Your task to perform on an android device: What's the weather today? Image 0: 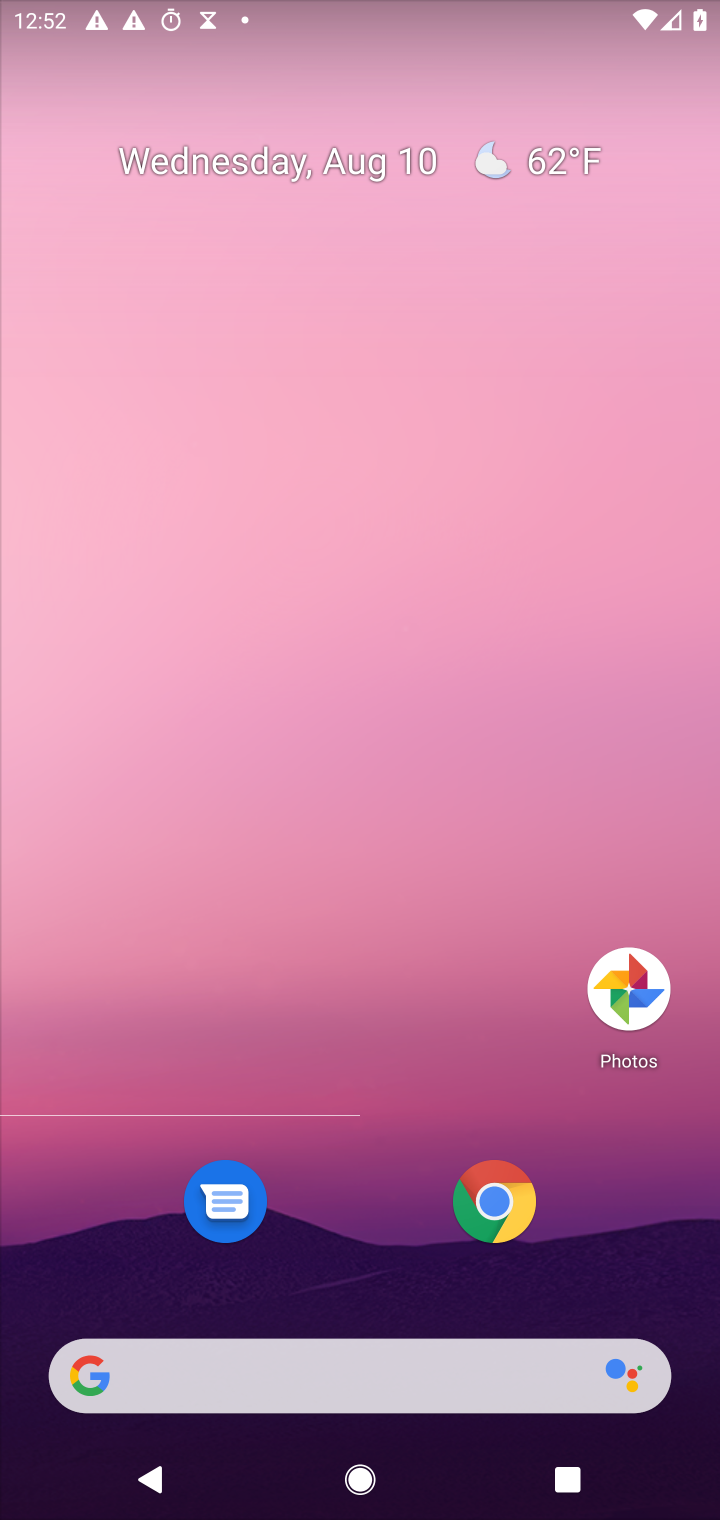
Step 0: drag from (372, 1229) to (353, 174)
Your task to perform on an android device: What's the weather today? Image 1: 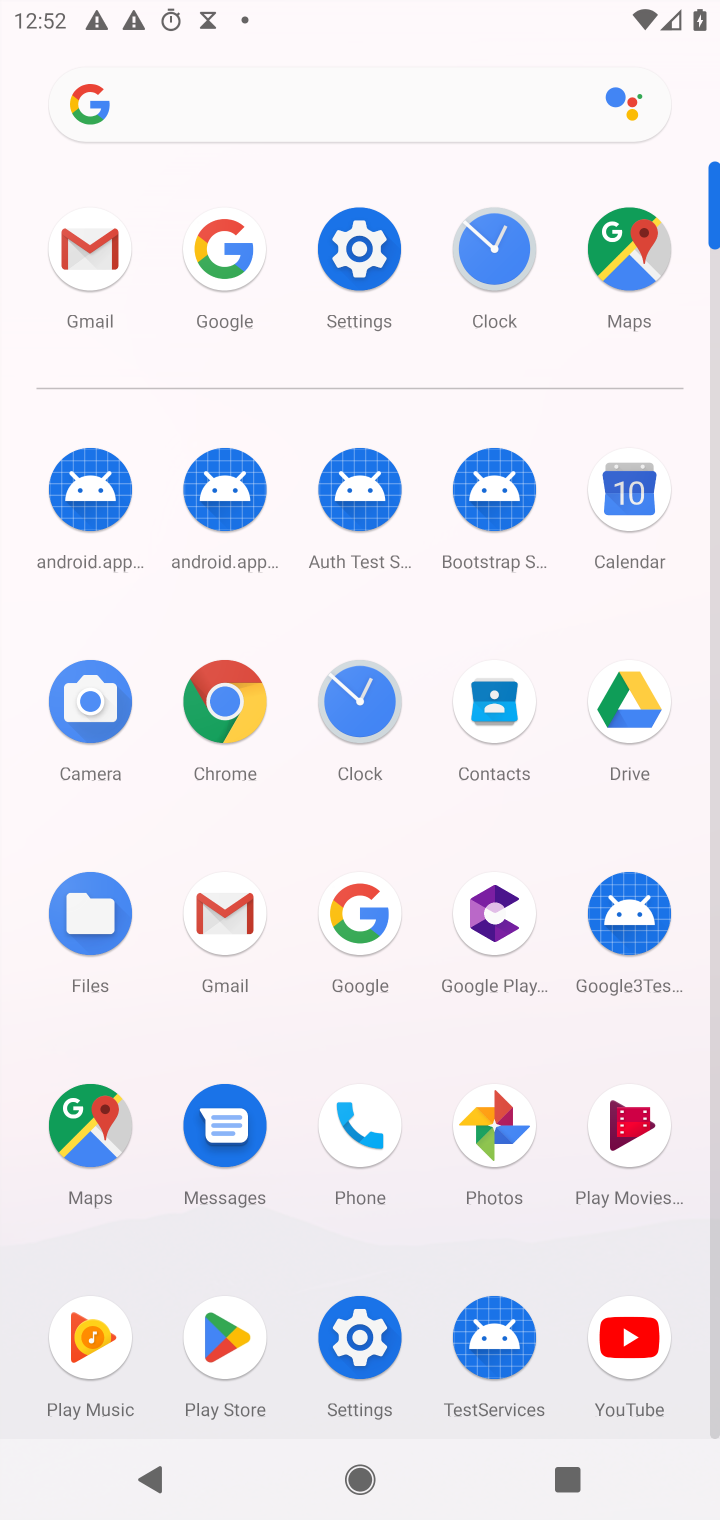
Step 1: click (234, 246)
Your task to perform on an android device: What's the weather today? Image 2: 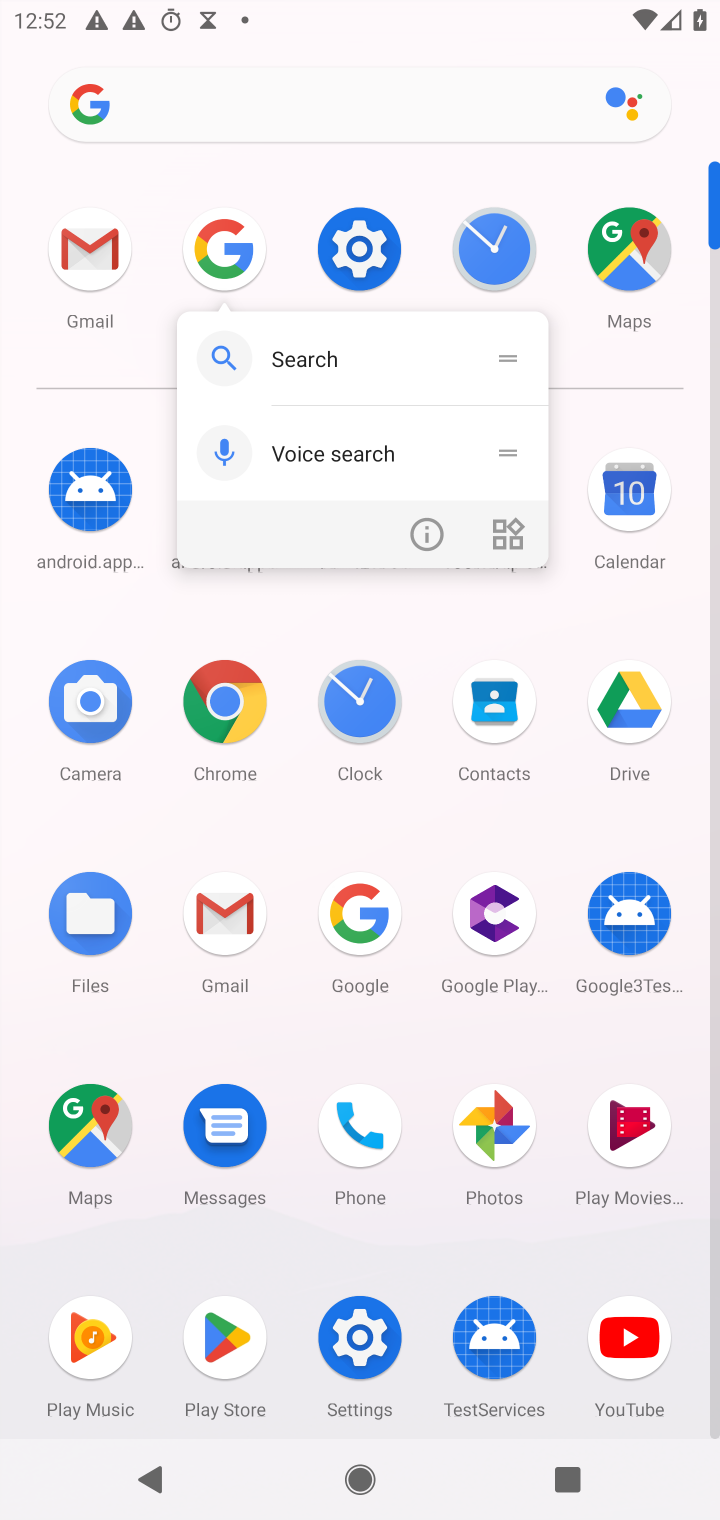
Step 2: click (220, 240)
Your task to perform on an android device: What's the weather today? Image 3: 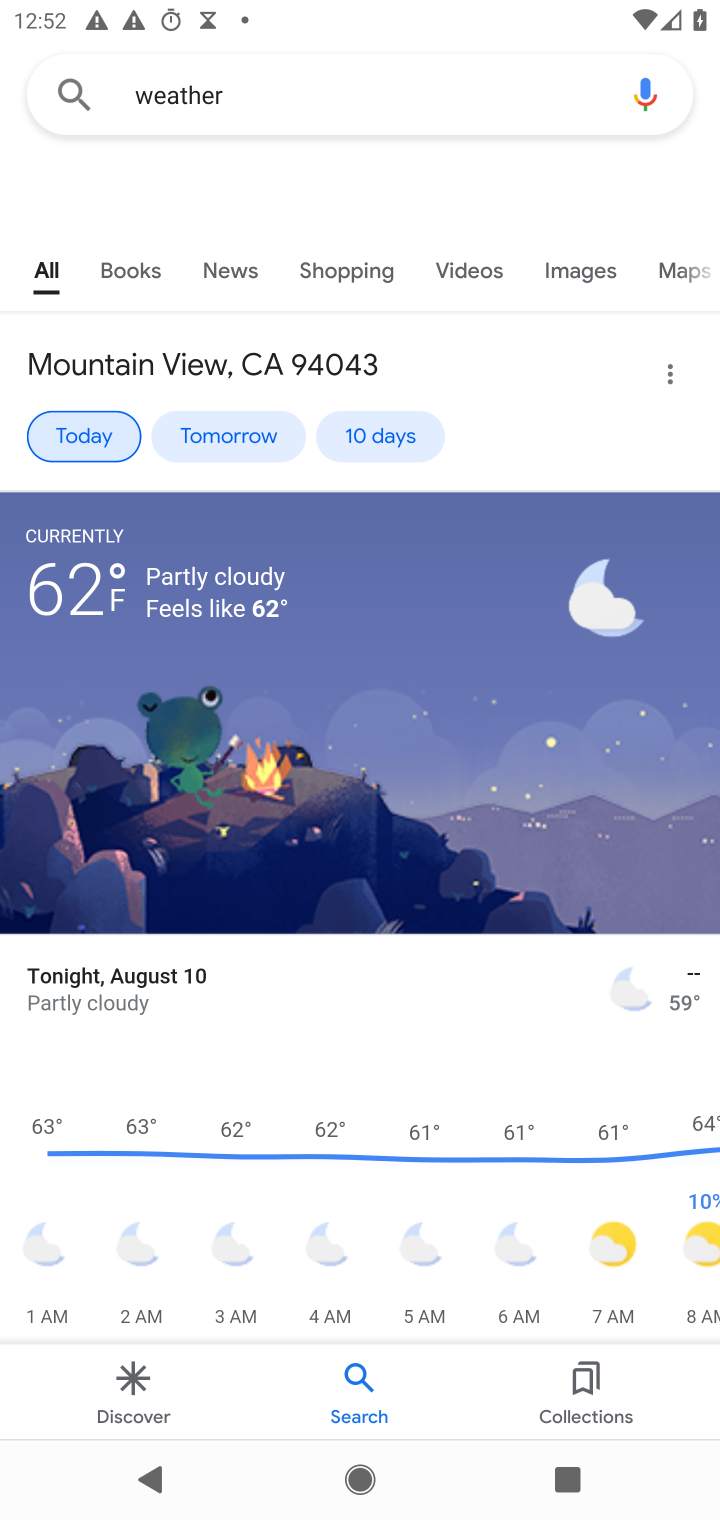
Step 3: click (375, 95)
Your task to perform on an android device: What's the weather today? Image 4: 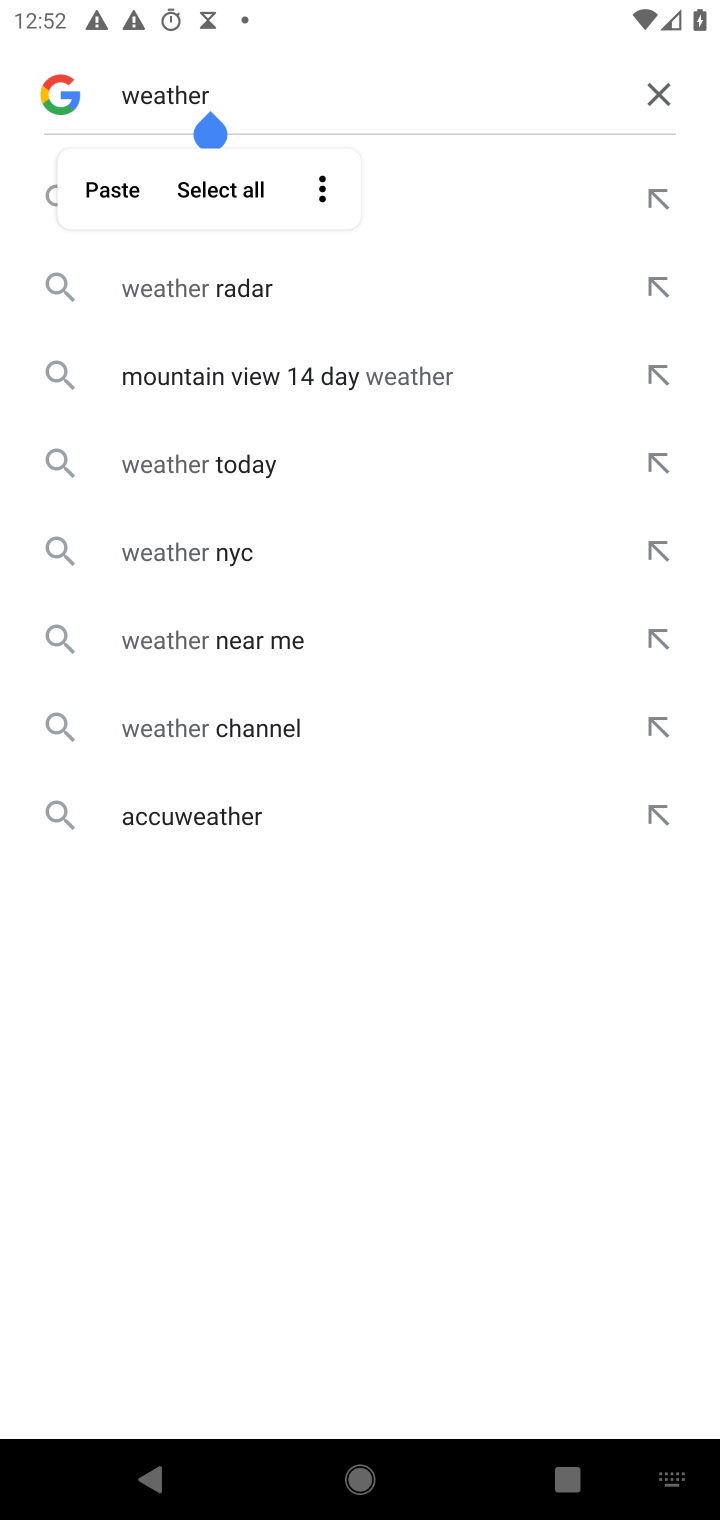
Step 4: click (666, 69)
Your task to perform on an android device: What's the weather today? Image 5: 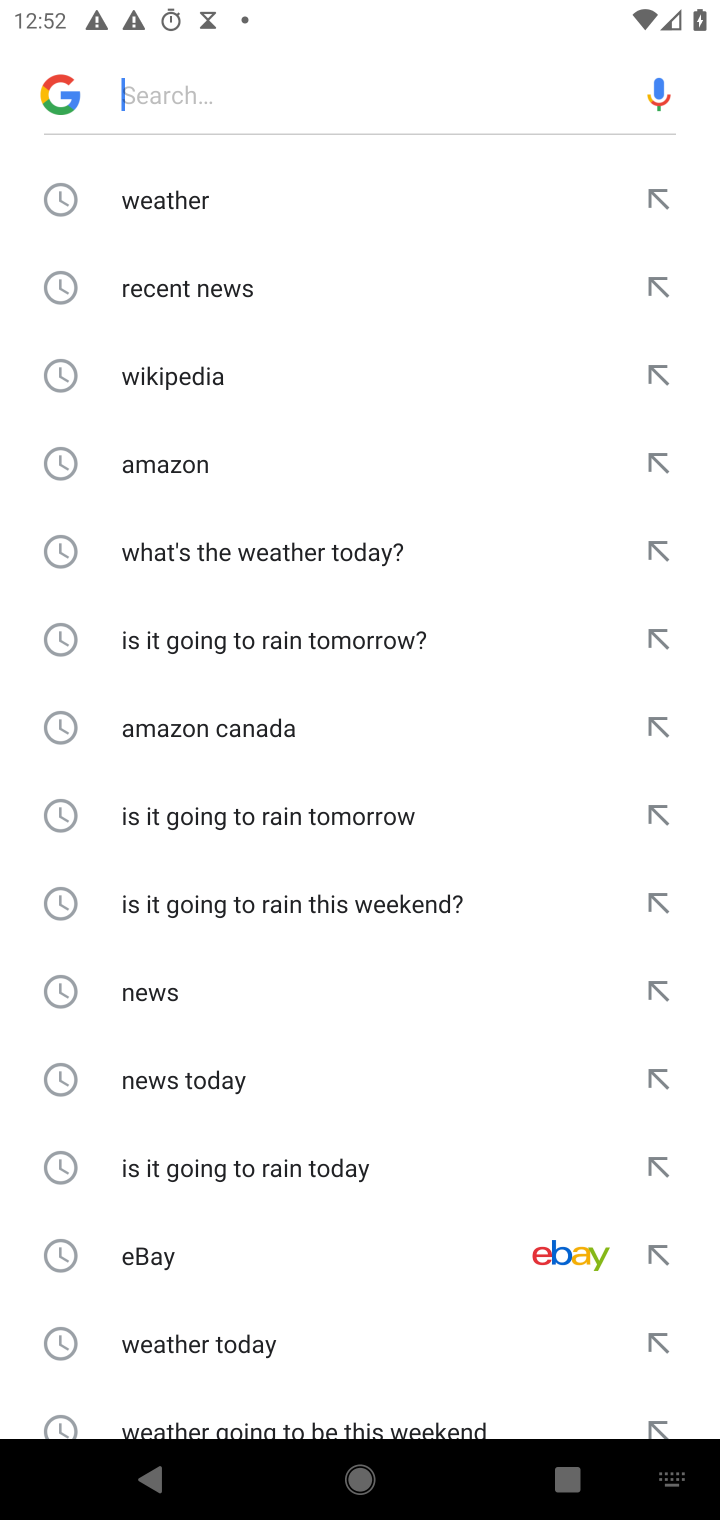
Step 5: type "What's the weather today?"
Your task to perform on an android device: What's the weather today? Image 6: 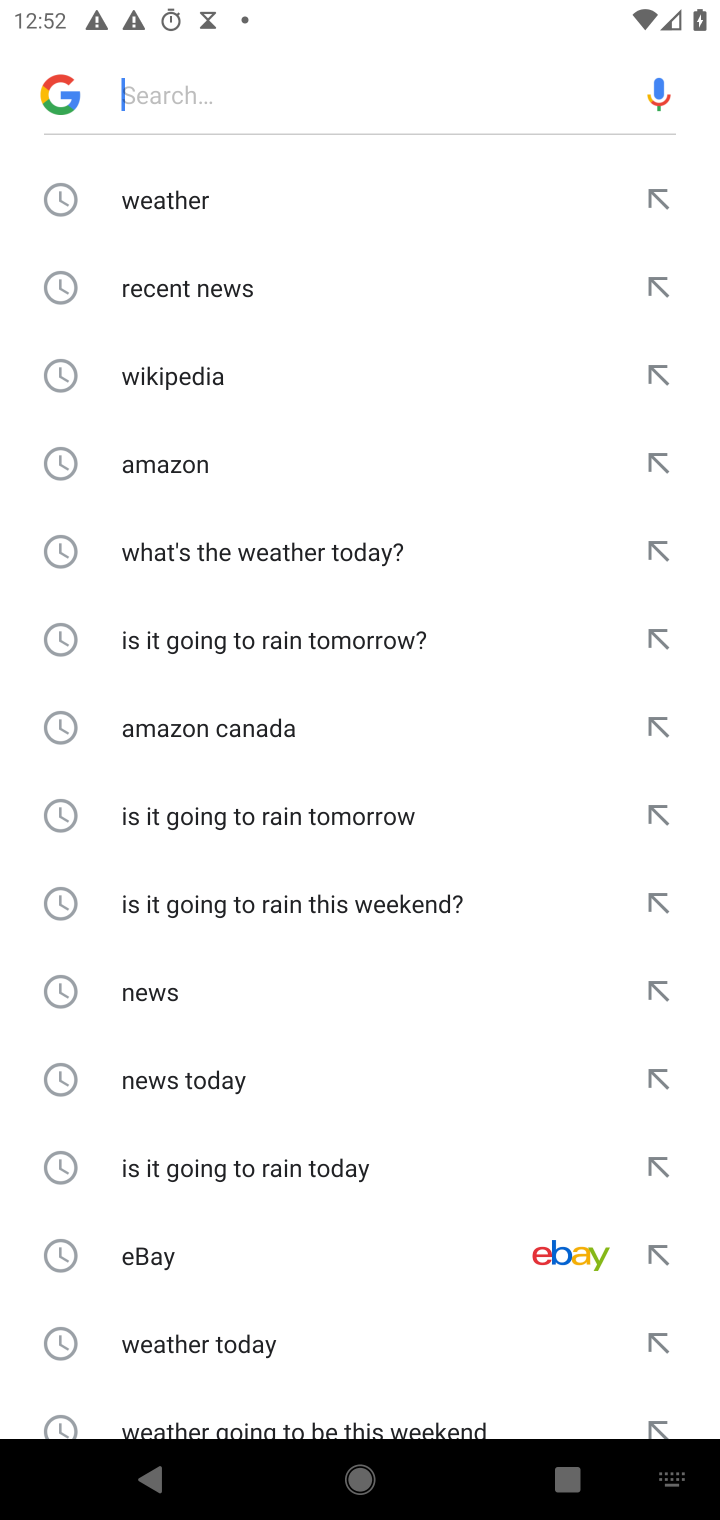
Step 6: click (230, 90)
Your task to perform on an android device: What's the weather today? Image 7: 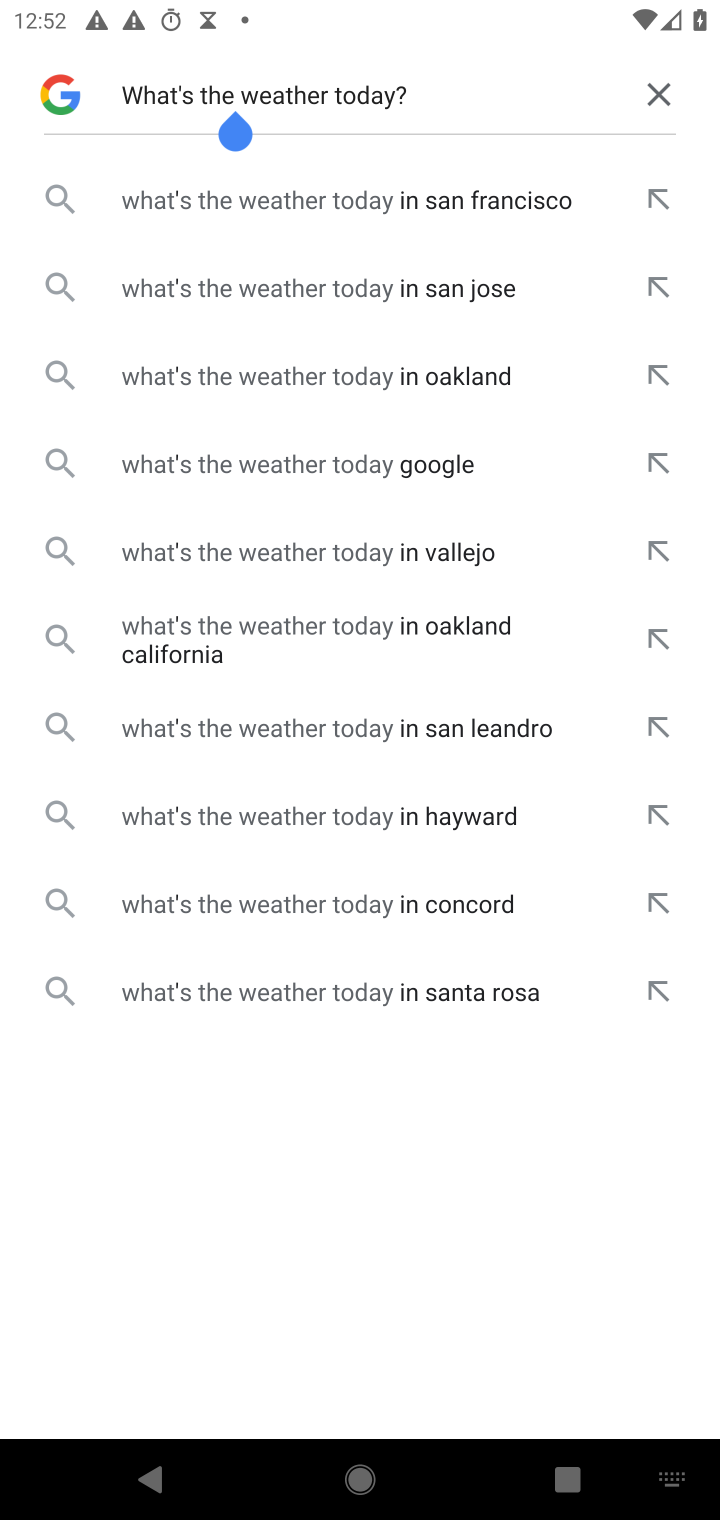
Step 7: press enter
Your task to perform on an android device: What's the weather today? Image 8: 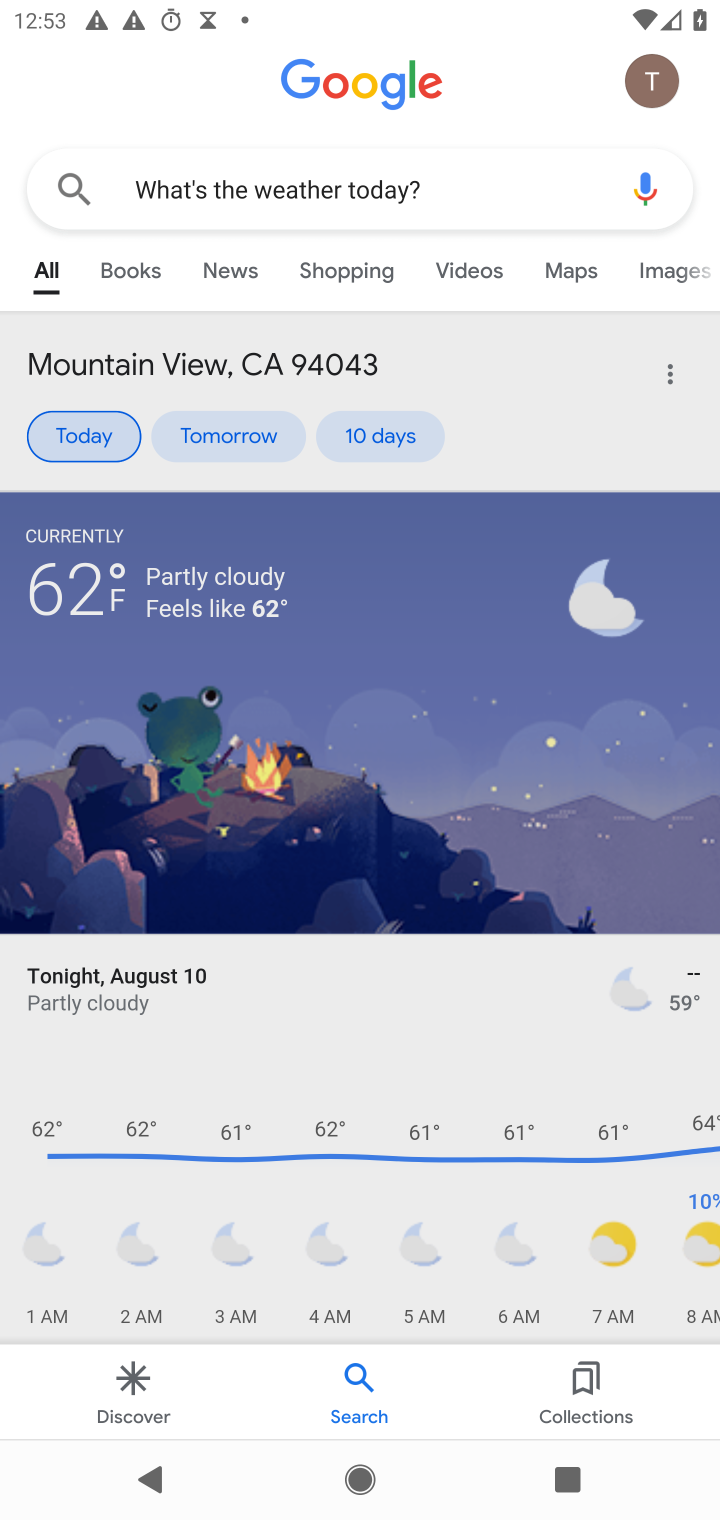
Step 8: task complete